Your task to perform on an android device: turn on the 12-hour format for clock Image 0: 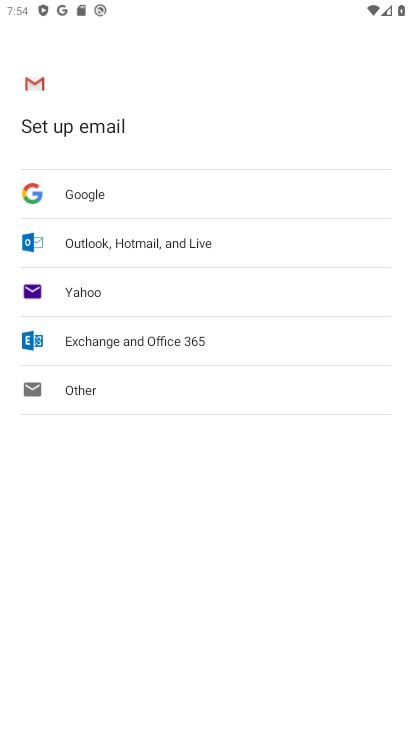
Step 0: press home button
Your task to perform on an android device: turn on the 12-hour format for clock Image 1: 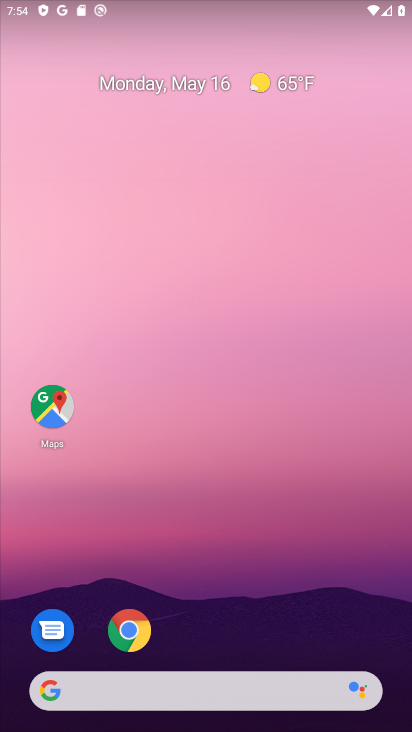
Step 1: drag from (205, 636) to (249, 202)
Your task to perform on an android device: turn on the 12-hour format for clock Image 2: 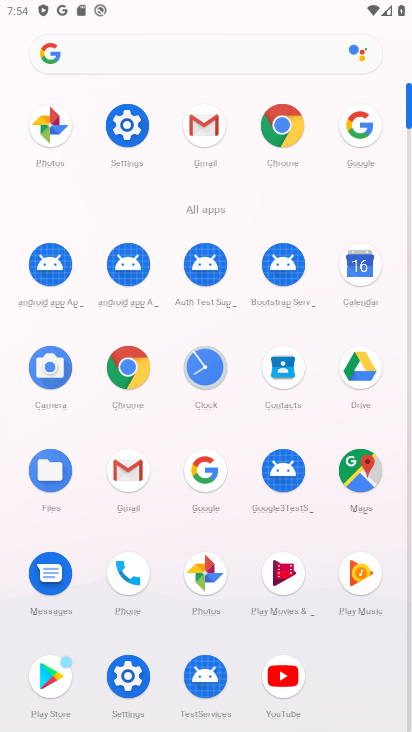
Step 2: click (210, 370)
Your task to perform on an android device: turn on the 12-hour format for clock Image 3: 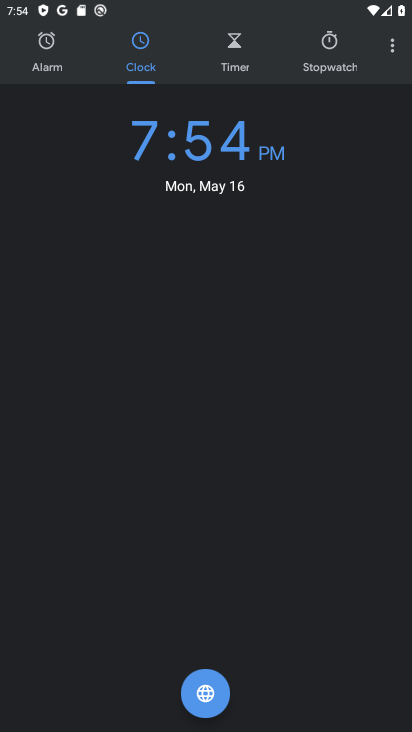
Step 3: click (392, 43)
Your task to perform on an android device: turn on the 12-hour format for clock Image 4: 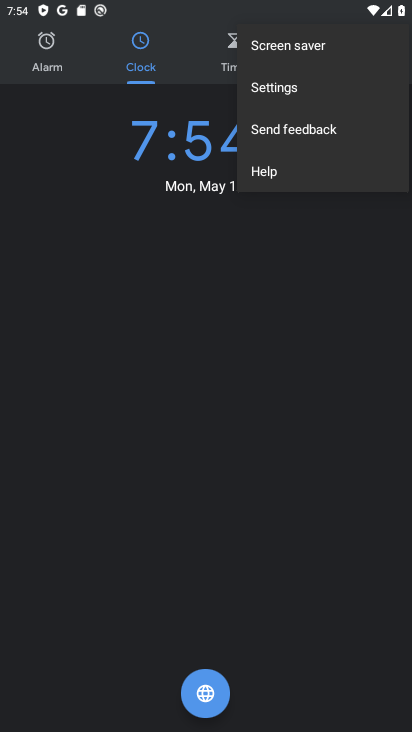
Step 4: click (342, 85)
Your task to perform on an android device: turn on the 12-hour format for clock Image 5: 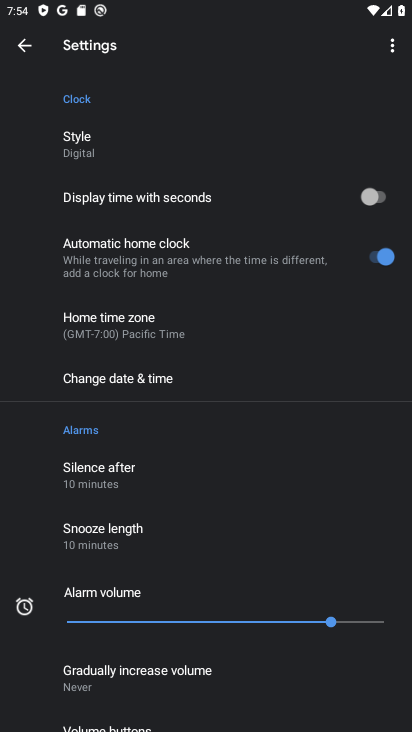
Step 5: click (169, 390)
Your task to perform on an android device: turn on the 12-hour format for clock Image 6: 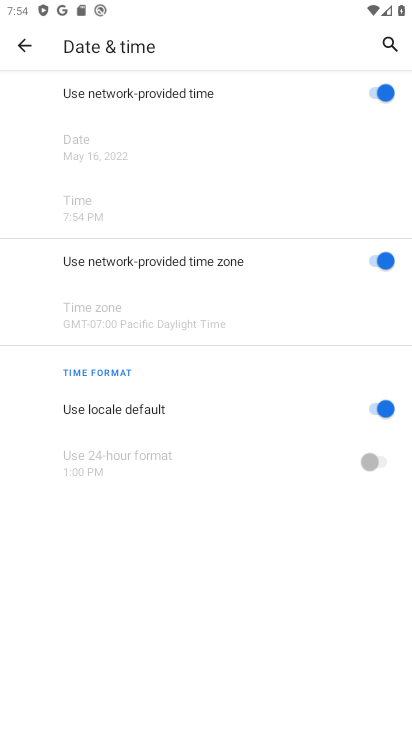
Step 6: task complete